Your task to perform on an android device: Search for "alienware area 51" on ebay, select the first entry, add it to the cart, then select checkout. Image 0: 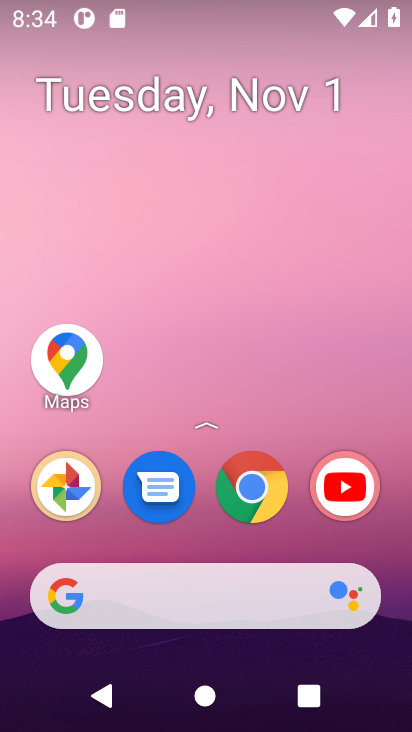
Step 0: press home button
Your task to perform on an android device: Search for "alienware area 51" on ebay, select the first entry, add it to the cart, then select checkout. Image 1: 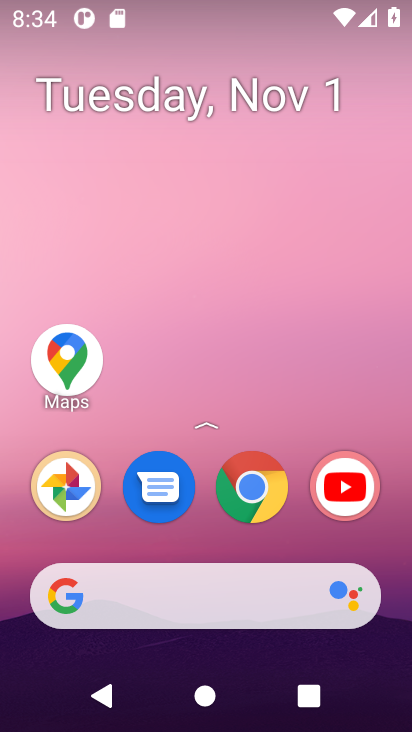
Step 1: drag from (201, 449) to (220, 61)
Your task to perform on an android device: Search for "alienware area 51" on ebay, select the first entry, add it to the cart, then select checkout. Image 2: 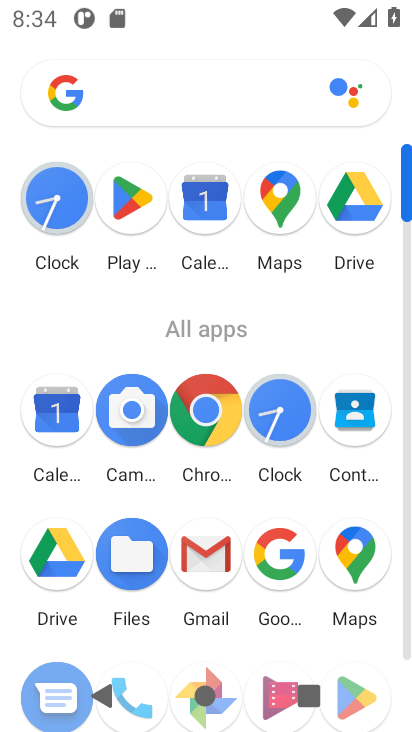
Step 2: click (201, 404)
Your task to perform on an android device: Search for "alienware area 51" on ebay, select the first entry, add it to the cart, then select checkout. Image 3: 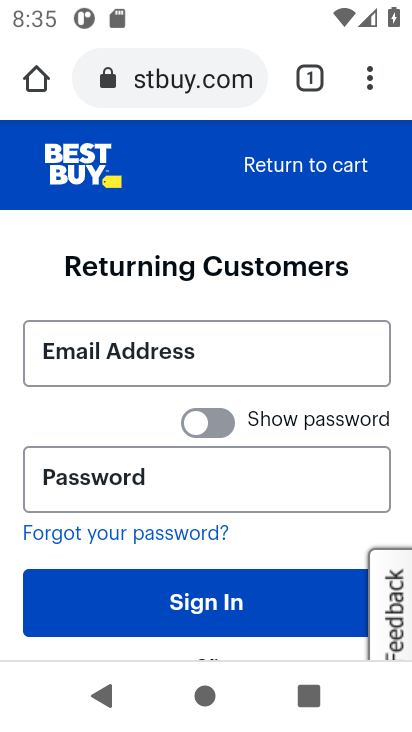
Step 3: click (157, 75)
Your task to perform on an android device: Search for "alienware area 51" on ebay, select the first entry, add it to the cart, then select checkout. Image 4: 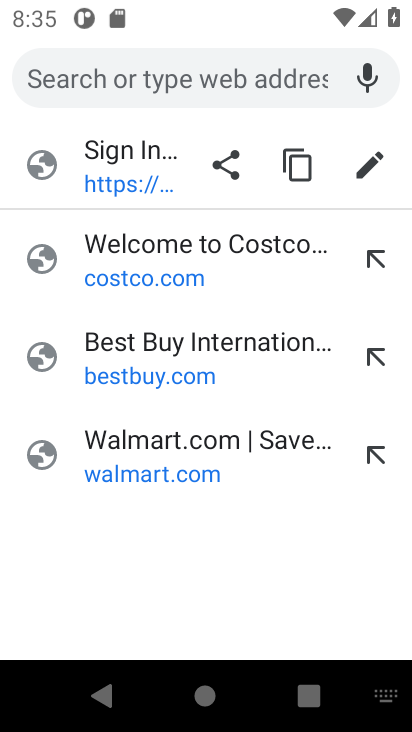
Step 4: type "ebay"
Your task to perform on an android device: Search for "alienware area 51" on ebay, select the first entry, add it to the cart, then select checkout. Image 5: 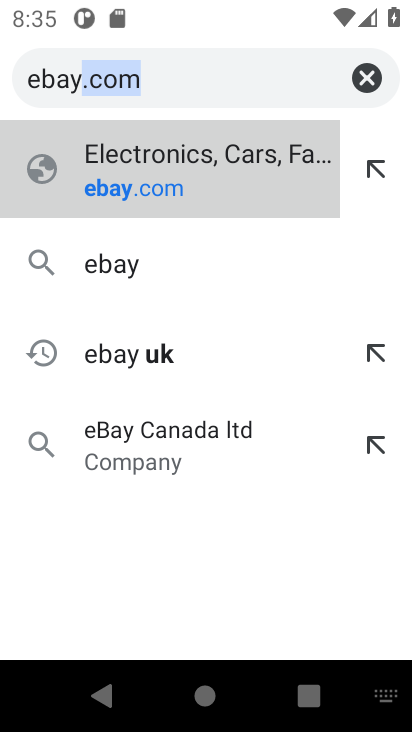
Step 5: click (197, 177)
Your task to perform on an android device: Search for "alienware area 51" on ebay, select the first entry, add it to the cart, then select checkout. Image 6: 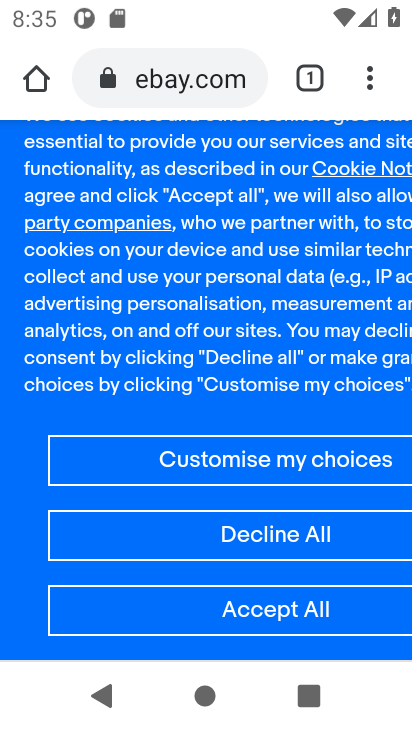
Step 6: click (309, 216)
Your task to perform on an android device: Search for "alienware area 51" on ebay, select the first entry, add it to the cart, then select checkout. Image 7: 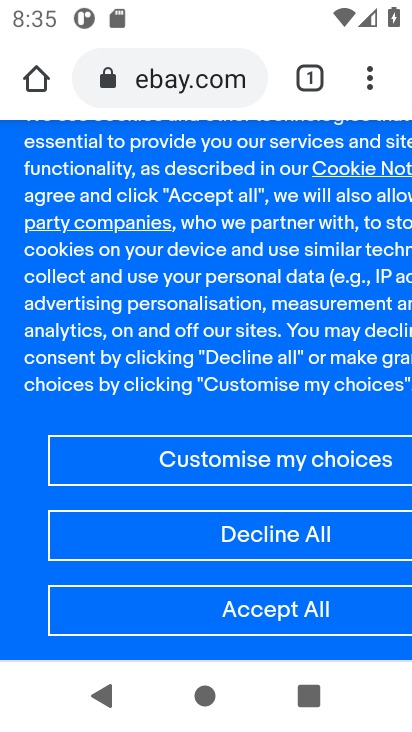
Step 7: click (282, 605)
Your task to perform on an android device: Search for "alienware area 51" on ebay, select the first entry, add it to the cart, then select checkout. Image 8: 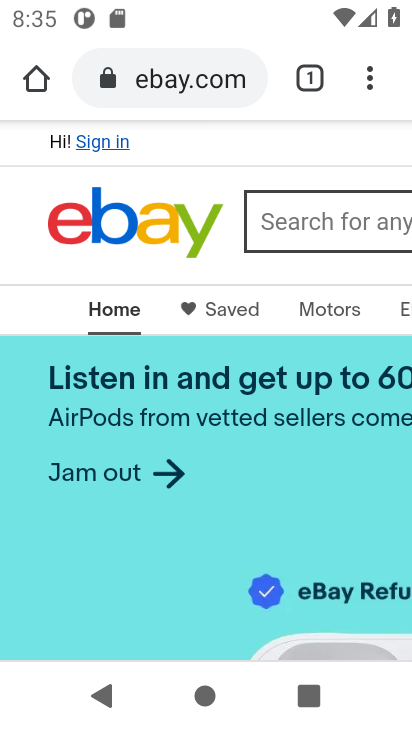
Step 8: click (301, 216)
Your task to perform on an android device: Search for "alienware area 51" on ebay, select the first entry, add it to the cart, then select checkout. Image 9: 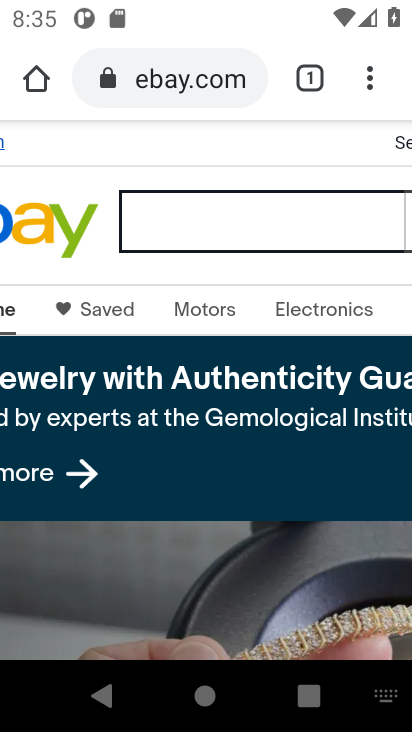
Step 9: type "alienware area 51"
Your task to perform on an android device: Search for "alienware area 51" on ebay, select the first entry, add it to the cart, then select checkout. Image 10: 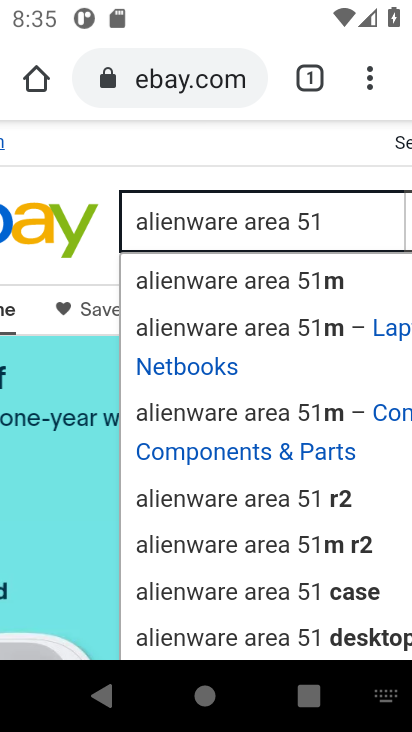
Step 10: click (247, 278)
Your task to perform on an android device: Search for "alienware area 51" on ebay, select the first entry, add it to the cart, then select checkout. Image 11: 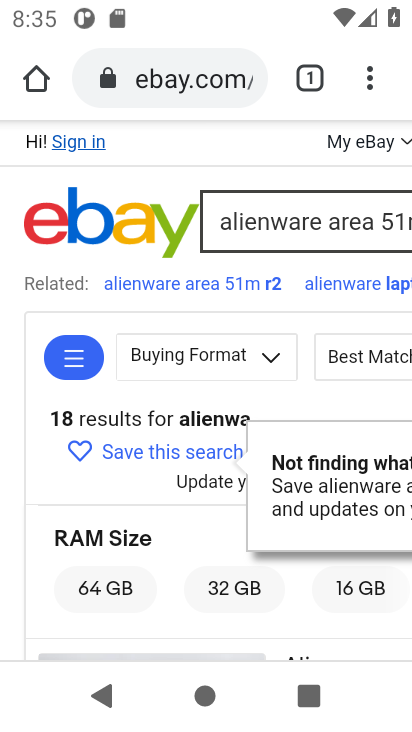
Step 11: drag from (297, 551) to (300, 199)
Your task to perform on an android device: Search for "alienware area 51" on ebay, select the first entry, add it to the cart, then select checkout. Image 12: 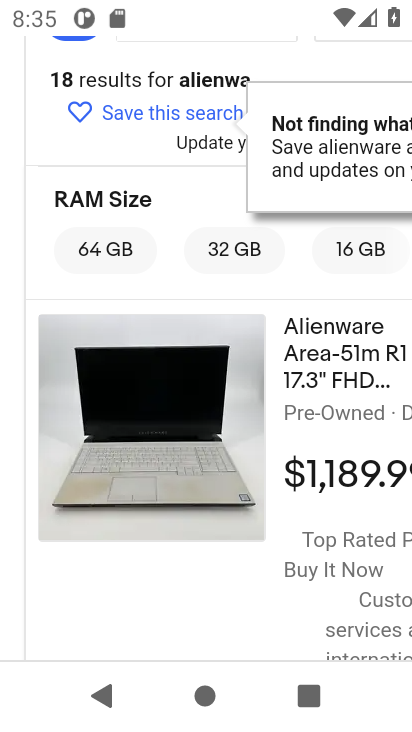
Step 12: click (300, 364)
Your task to perform on an android device: Search for "alienware area 51" on ebay, select the first entry, add it to the cart, then select checkout. Image 13: 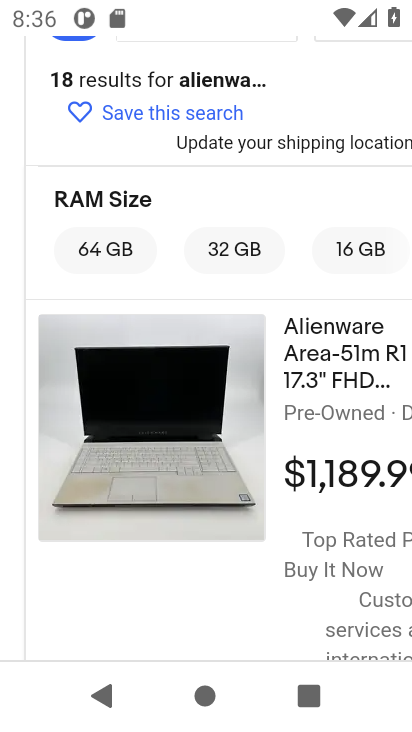
Step 13: drag from (291, 560) to (293, 336)
Your task to perform on an android device: Search for "alienware area 51" on ebay, select the first entry, add it to the cart, then select checkout. Image 14: 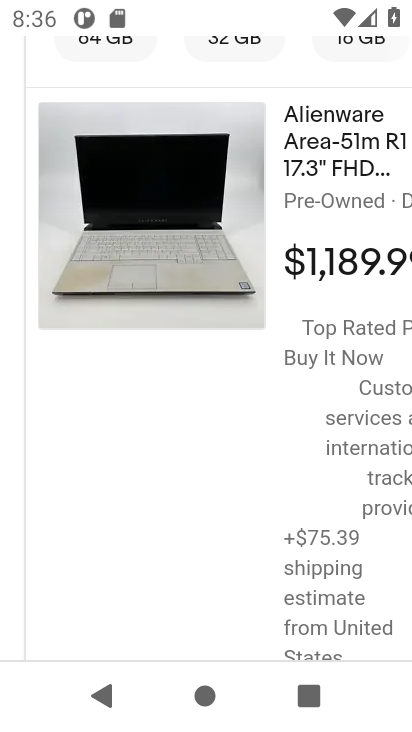
Step 14: click (320, 143)
Your task to perform on an android device: Search for "alienware area 51" on ebay, select the first entry, add it to the cart, then select checkout. Image 15: 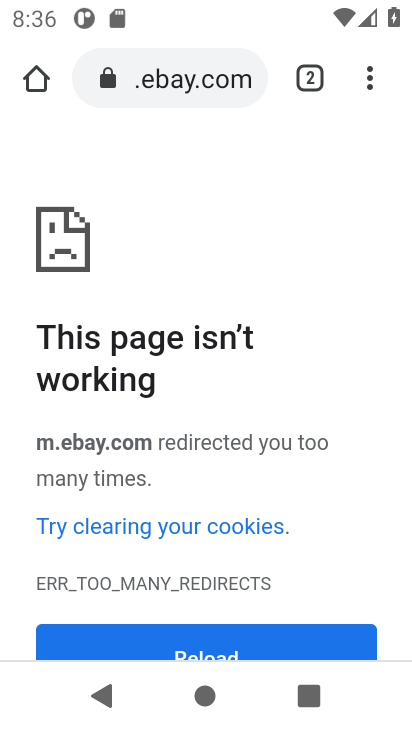
Step 15: press back button
Your task to perform on an android device: Search for "alienware area 51" on ebay, select the first entry, add it to the cart, then select checkout. Image 16: 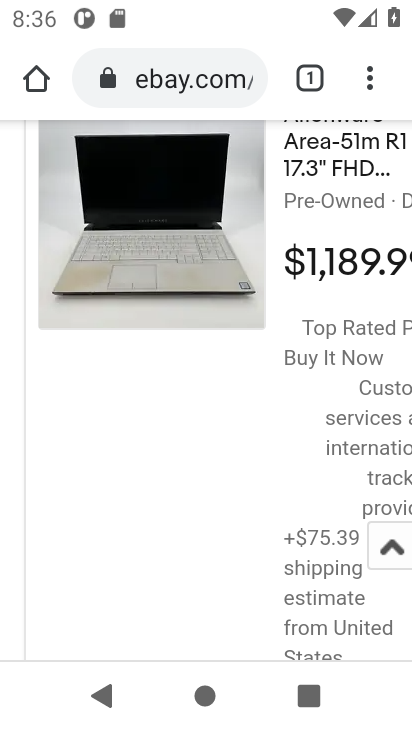
Step 16: drag from (228, 593) to (249, 109)
Your task to perform on an android device: Search for "alienware area 51" on ebay, select the first entry, add it to the cart, then select checkout. Image 17: 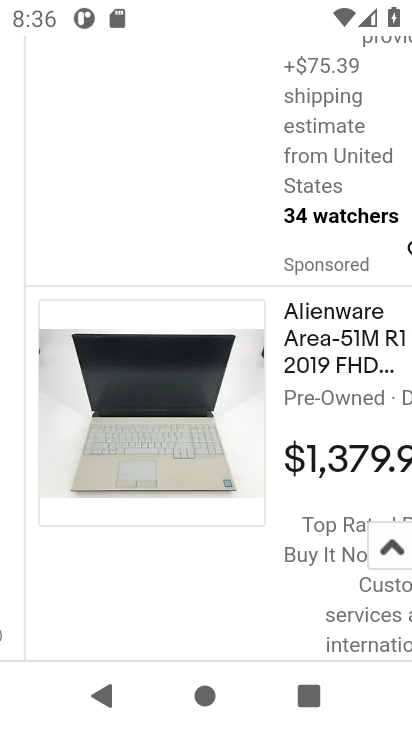
Step 17: click (320, 349)
Your task to perform on an android device: Search for "alienware area 51" on ebay, select the first entry, add it to the cart, then select checkout. Image 18: 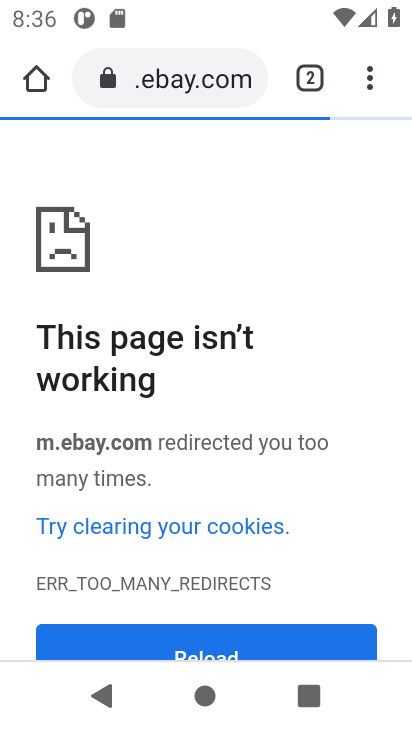
Step 18: press back button
Your task to perform on an android device: Search for "alienware area 51" on ebay, select the first entry, add it to the cart, then select checkout. Image 19: 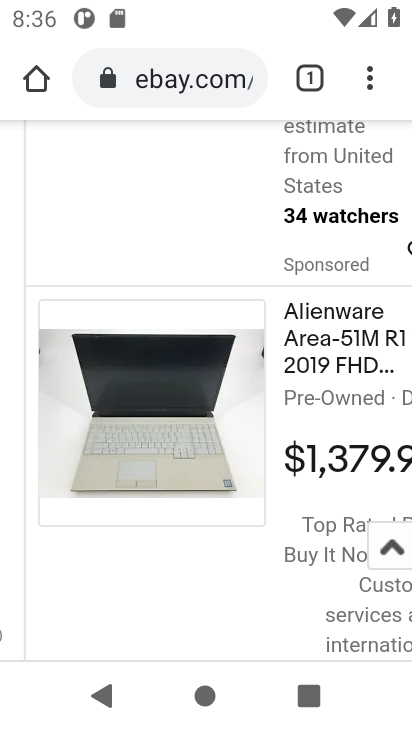
Step 19: drag from (243, 609) to (245, 93)
Your task to perform on an android device: Search for "alienware area 51" on ebay, select the first entry, add it to the cart, then select checkout. Image 20: 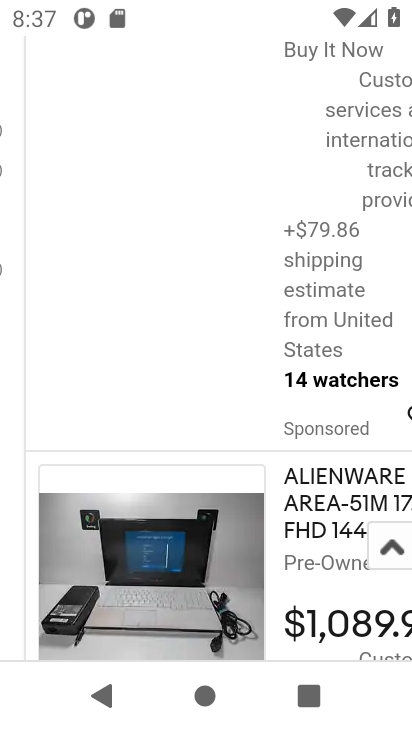
Step 20: click (312, 492)
Your task to perform on an android device: Search for "alienware area 51" on ebay, select the first entry, add it to the cart, then select checkout. Image 21: 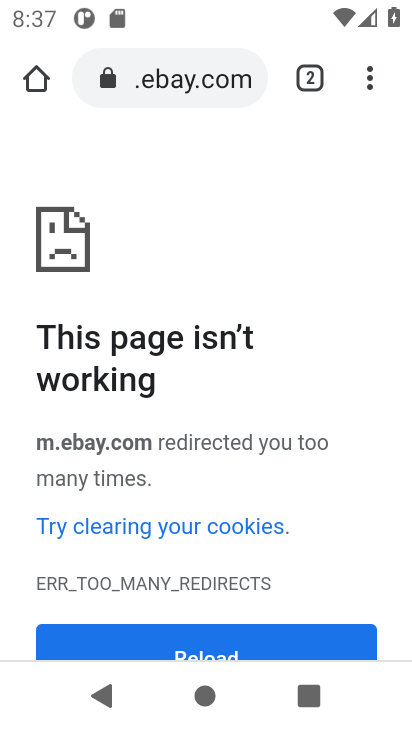
Step 21: press back button
Your task to perform on an android device: Search for "alienware area 51" on ebay, select the first entry, add it to the cart, then select checkout. Image 22: 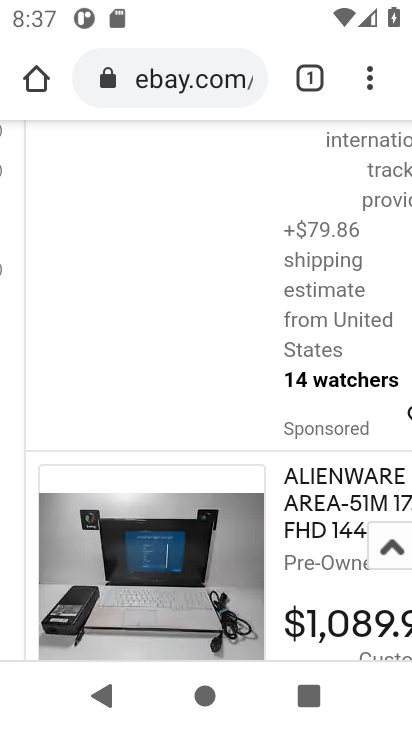
Step 22: drag from (307, 296) to (307, 125)
Your task to perform on an android device: Search for "alienware area 51" on ebay, select the first entry, add it to the cart, then select checkout. Image 23: 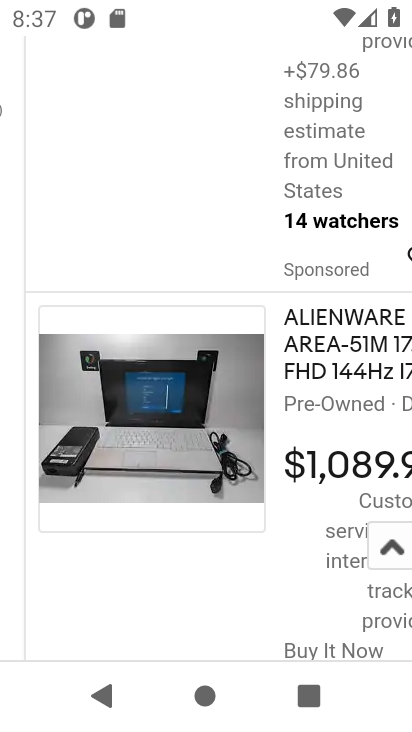
Step 23: drag from (314, 611) to (304, 185)
Your task to perform on an android device: Search for "alienware area 51" on ebay, select the first entry, add it to the cart, then select checkout. Image 24: 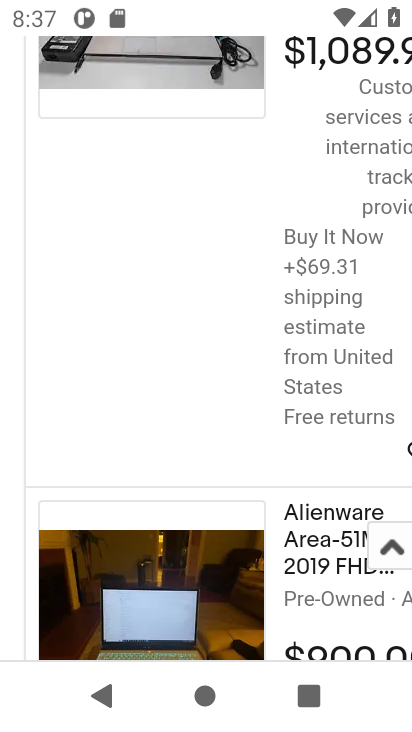
Step 24: click (289, 574)
Your task to perform on an android device: Search for "alienware area 51" on ebay, select the first entry, add it to the cart, then select checkout. Image 25: 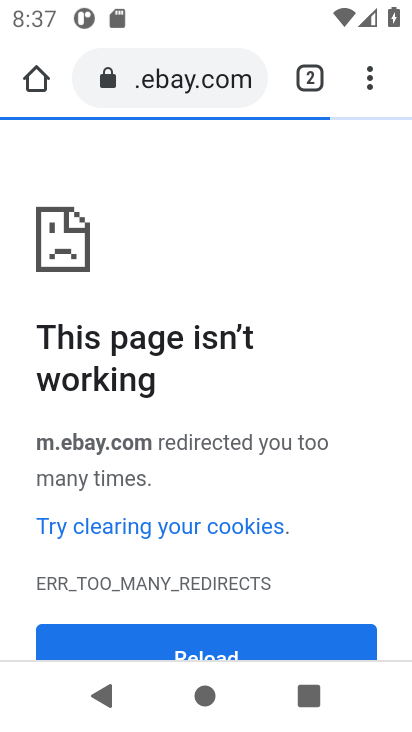
Step 25: task complete